Your task to perform on an android device: When is my next appointment? Image 0: 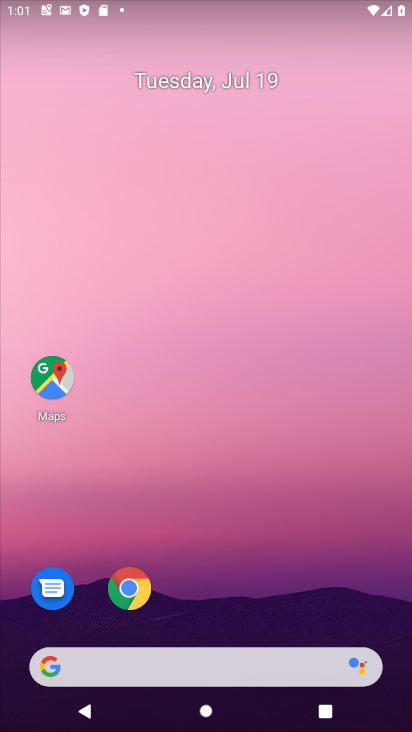
Step 0: drag from (134, 458) to (176, 251)
Your task to perform on an android device: When is my next appointment? Image 1: 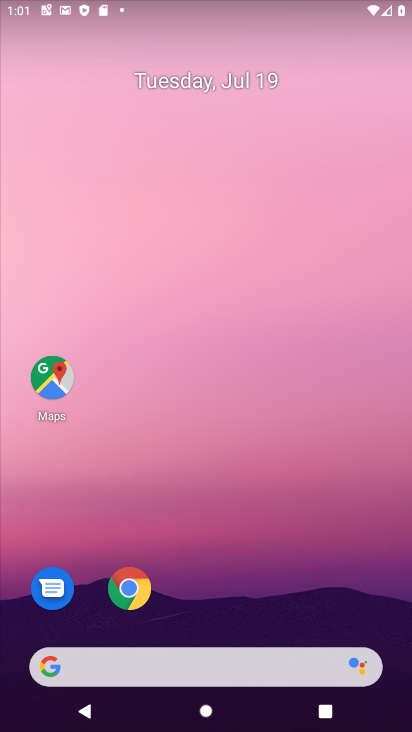
Step 1: drag from (19, 685) to (265, 137)
Your task to perform on an android device: When is my next appointment? Image 2: 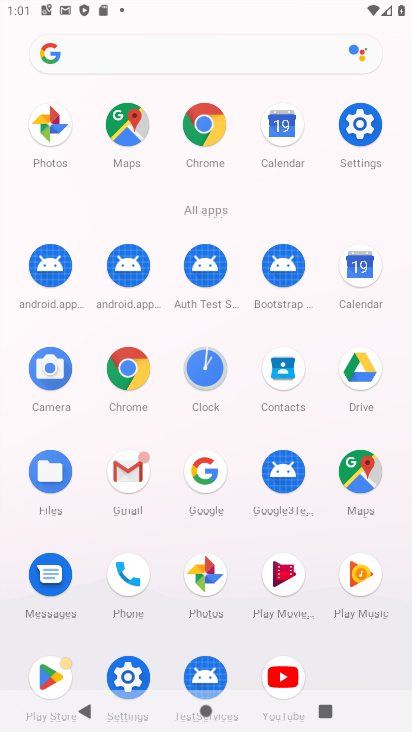
Step 2: click (358, 279)
Your task to perform on an android device: When is my next appointment? Image 3: 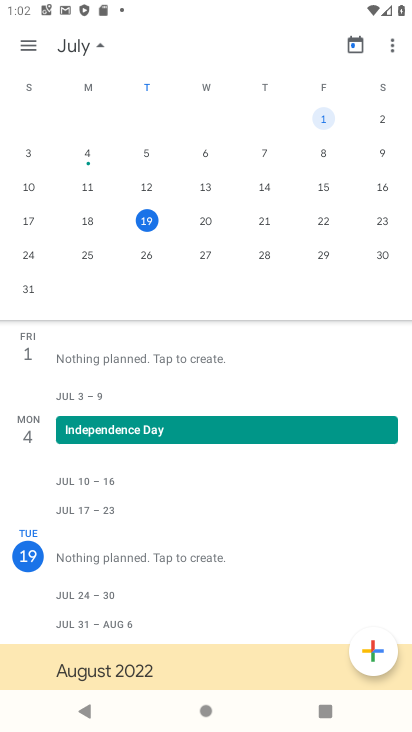
Step 3: task complete